Your task to perform on an android device: Open Youtube and go to the subscriptions tab Image 0: 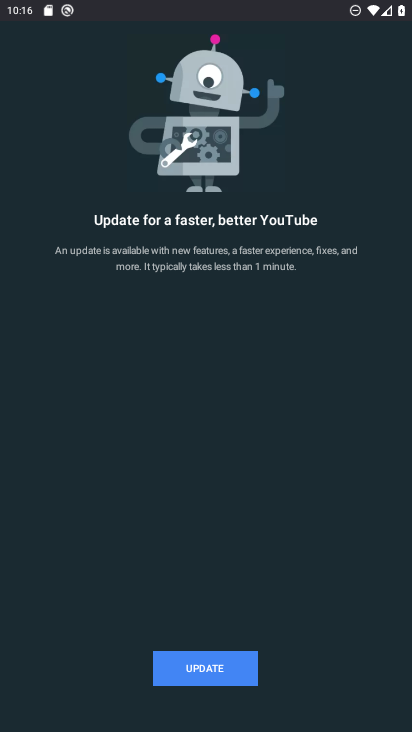
Step 0: press home button
Your task to perform on an android device: Open Youtube and go to the subscriptions tab Image 1: 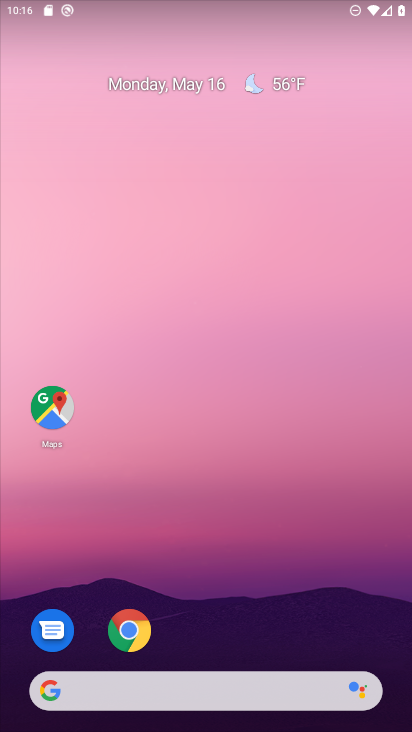
Step 1: drag from (214, 633) to (225, 0)
Your task to perform on an android device: Open Youtube and go to the subscriptions tab Image 2: 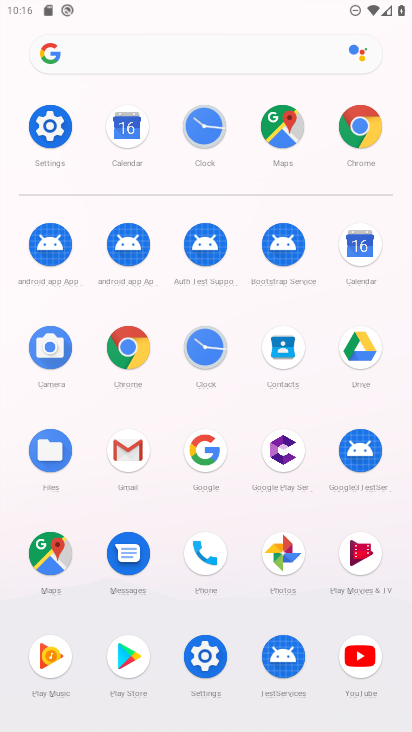
Step 2: click (365, 660)
Your task to perform on an android device: Open Youtube and go to the subscriptions tab Image 3: 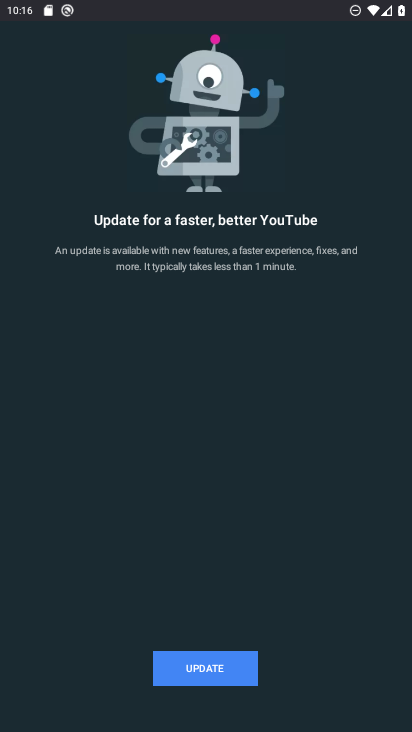
Step 3: click (211, 652)
Your task to perform on an android device: Open Youtube and go to the subscriptions tab Image 4: 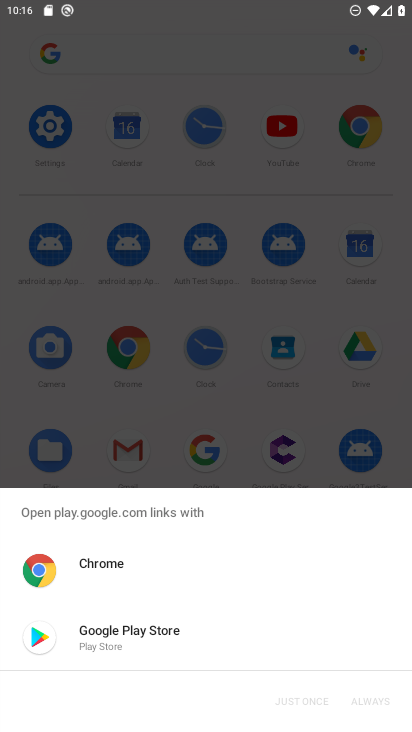
Step 4: click (145, 620)
Your task to perform on an android device: Open Youtube and go to the subscriptions tab Image 5: 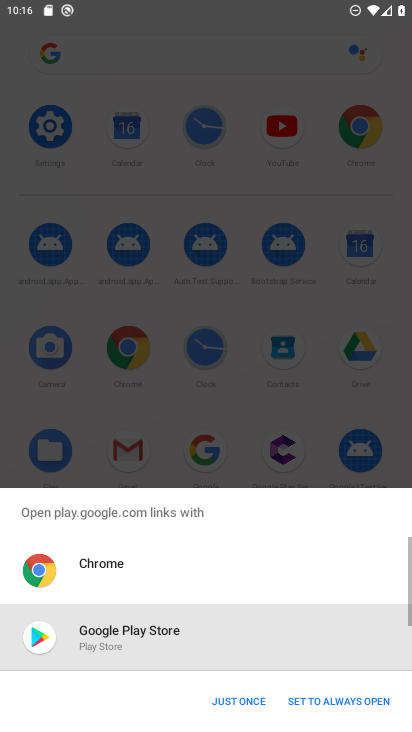
Step 5: click (267, 698)
Your task to perform on an android device: Open Youtube and go to the subscriptions tab Image 6: 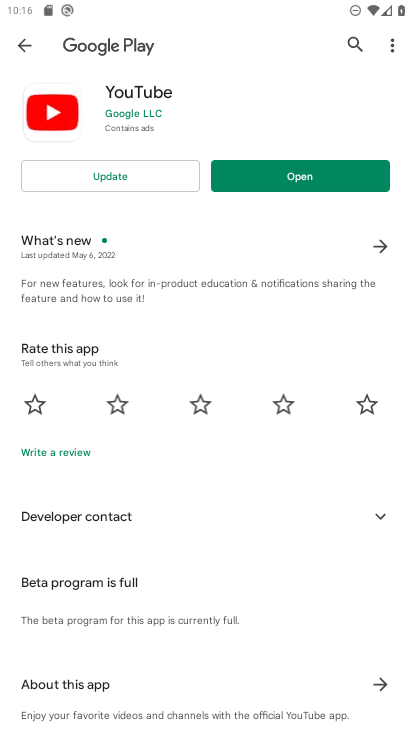
Step 6: click (149, 181)
Your task to perform on an android device: Open Youtube and go to the subscriptions tab Image 7: 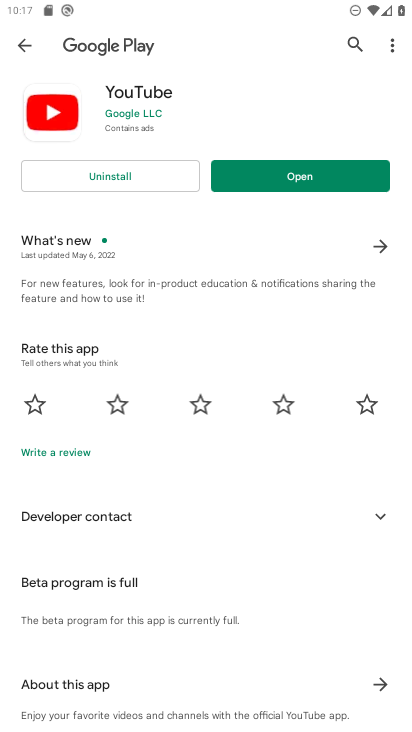
Step 7: click (288, 174)
Your task to perform on an android device: Open Youtube and go to the subscriptions tab Image 8: 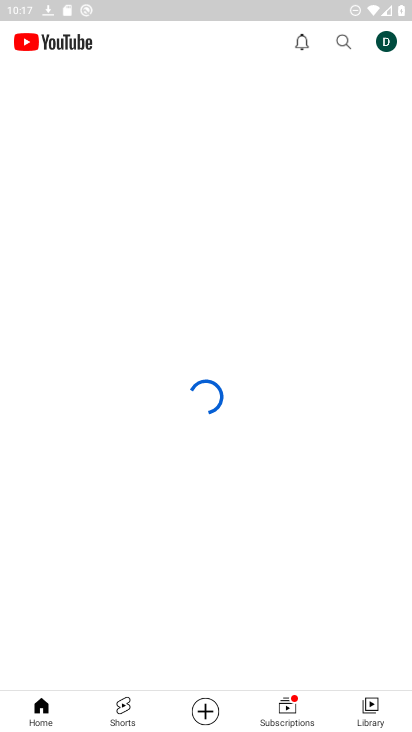
Step 8: click (290, 716)
Your task to perform on an android device: Open Youtube and go to the subscriptions tab Image 9: 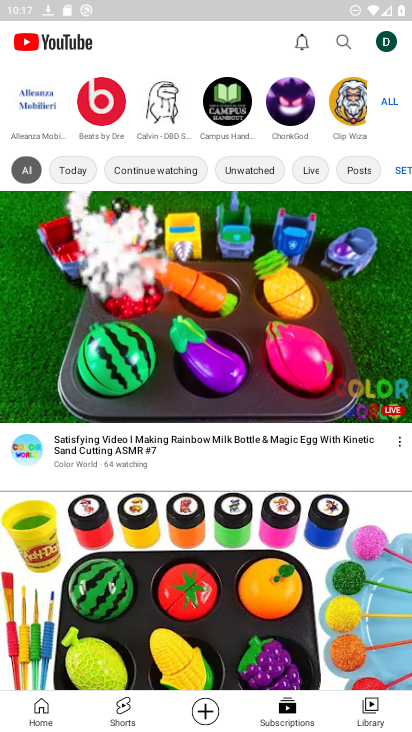
Step 9: task complete